Your task to perform on an android device: Open Google Maps and go to "Timeline" Image 0: 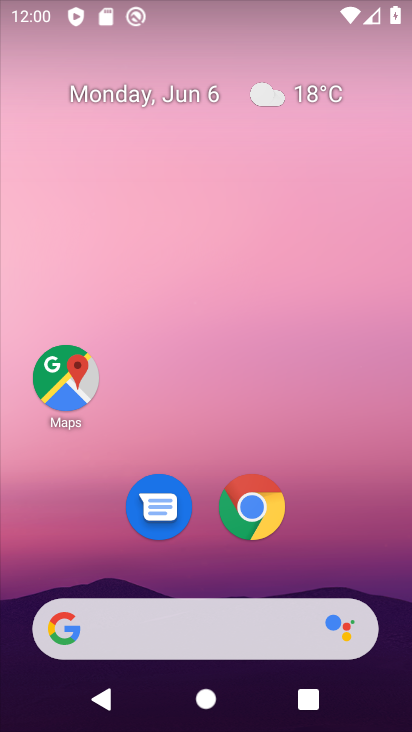
Step 0: click (74, 385)
Your task to perform on an android device: Open Google Maps and go to "Timeline" Image 1: 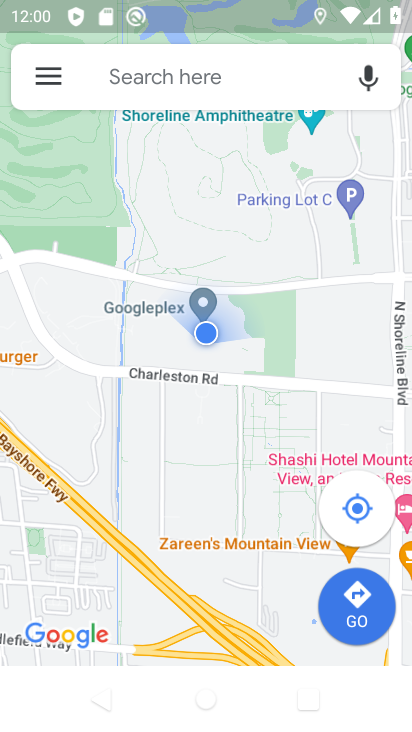
Step 1: task complete